Your task to perform on an android device: open a bookmark in the chrome app Image 0: 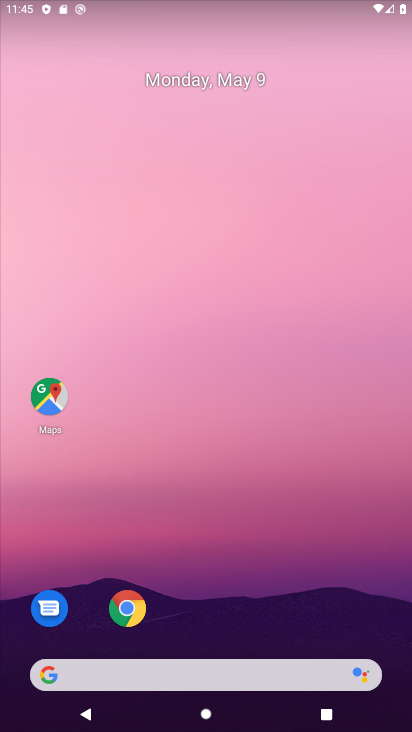
Step 0: click (118, 608)
Your task to perform on an android device: open a bookmark in the chrome app Image 1: 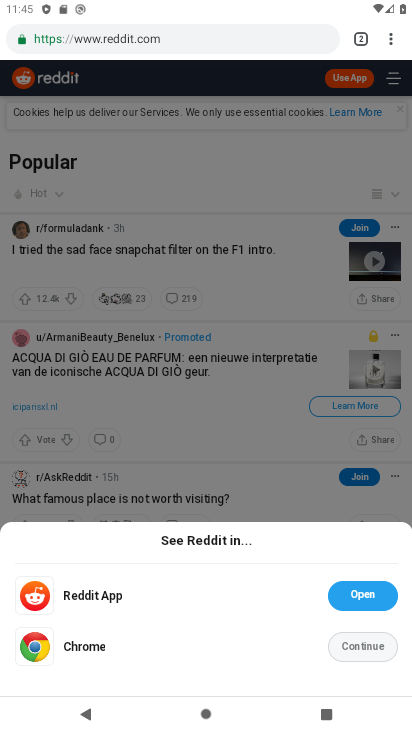
Step 1: click (369, 644)
Your task to perform on an android device: open a bookmark in the chrome app Image 2: 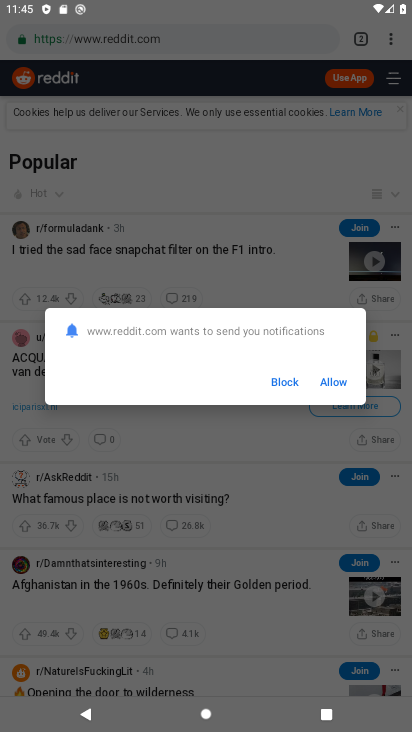
Step 2: click (327, 374)
Your task to perform on an android device: open a bookmark in the chrome app Image 3: 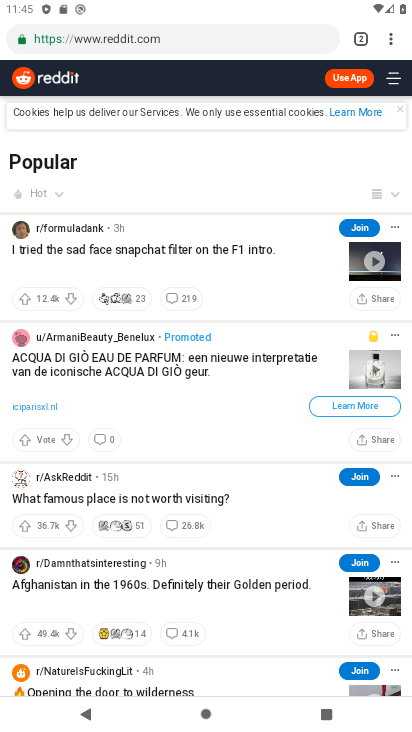
Step 3: click (388, 41)
Your task to perform on an android device: open a bookmark in the chrome app Image 4: 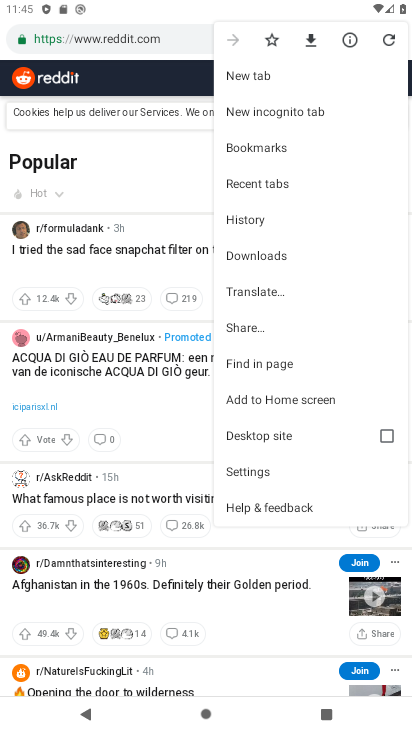
Step 4: click (242, 143)
Your task to perform on an android device: open a bookmark in the chrome app Image 5: 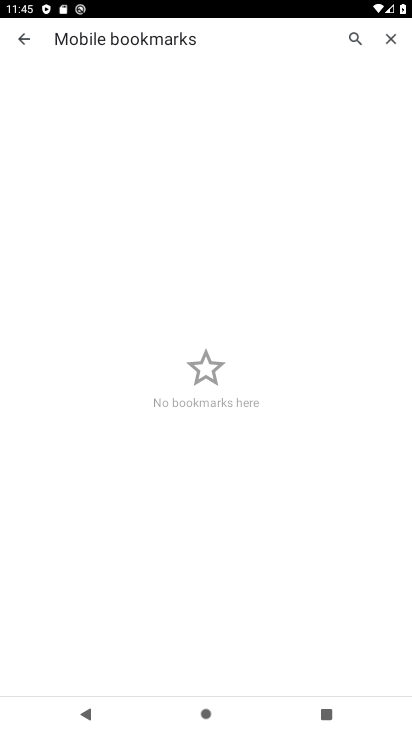
Step 5: task complete